Your task to perform on an android device: change text size in settings app Image 0: 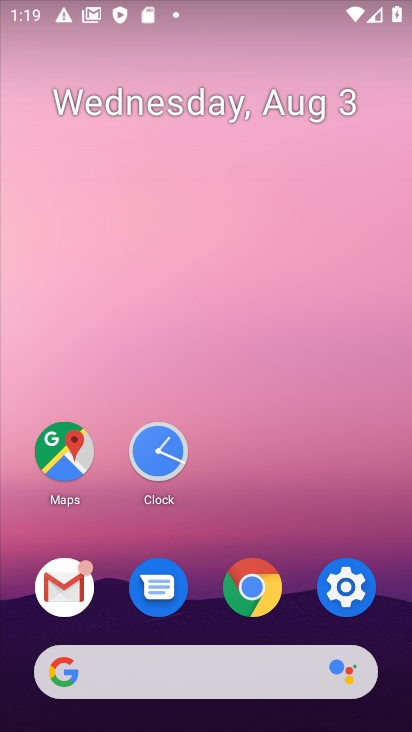
Step 0: press home button
Your task to perform on an android device: change text size in settings app Image 1: 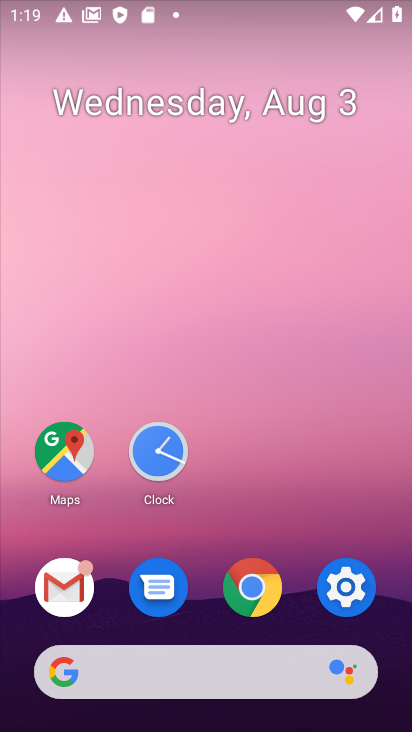
Step 1: click (342, 568)
Your task to perform on an android device: change text size in settings app Image 2: 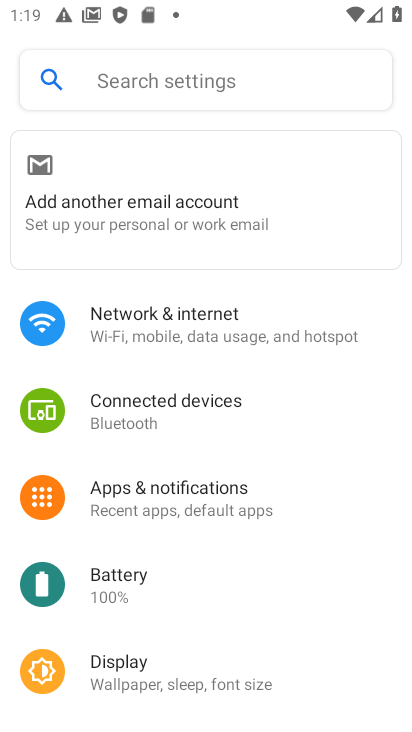
Step 2: click (137, 668)
Your task to perform on an android device: change text size in settings app Image 3: 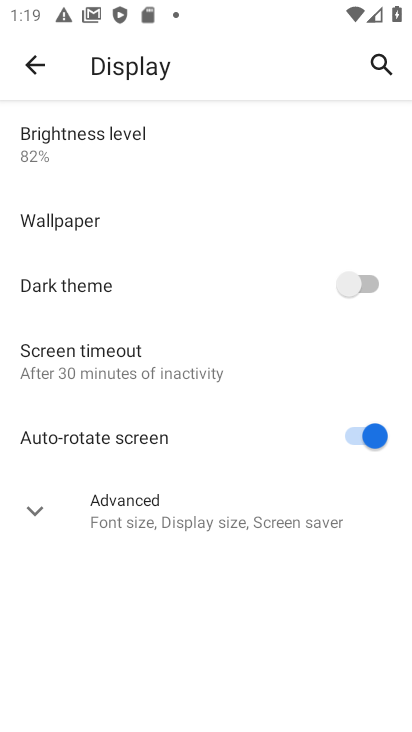
Step 3: click (140, 511)
Your task to perform on an android device: change text size in settings app Image 4: 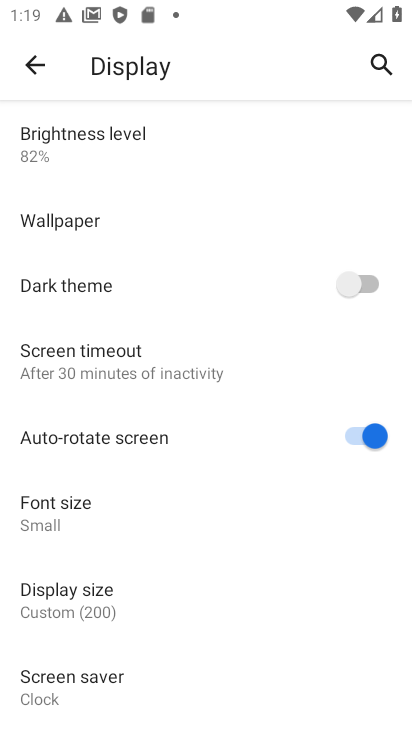
Step 4: click (72, 502)
Your task to perform on an android device: change text size in settings app Image 5: 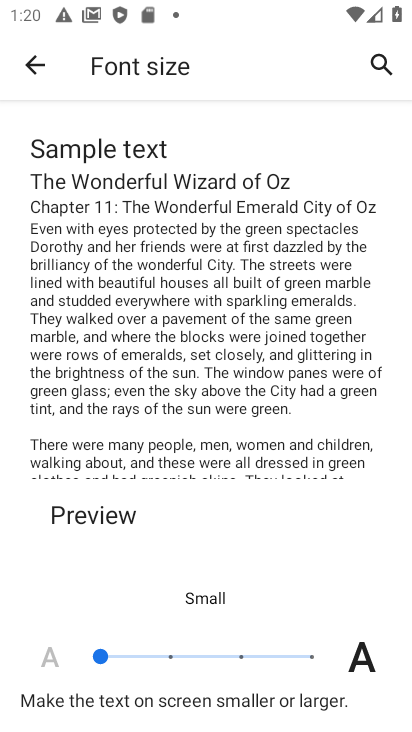
Step 5: click (154, 651)
Your task to perform on an android device: change text size in settings app Image 6: 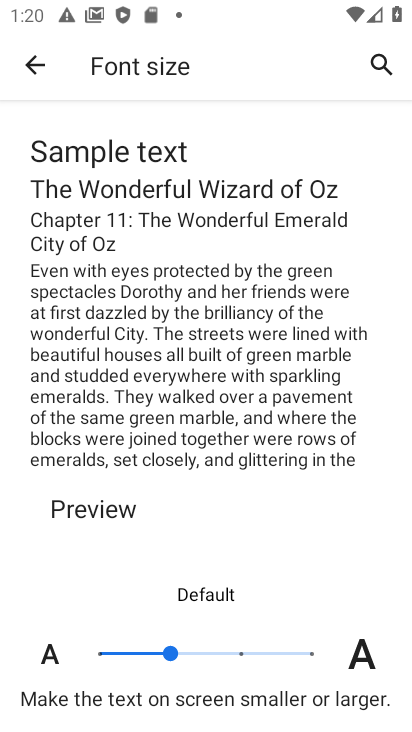
Step 6: task complete